Your task to perform on an android device: search for starred emails in the gmail app Image 0: 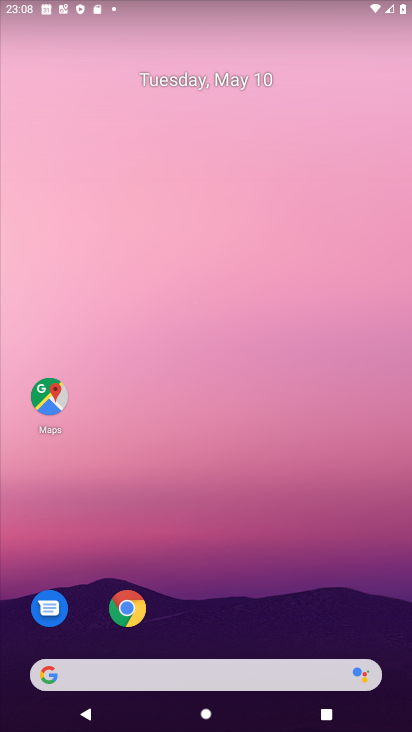
Step 0: drag from (229, 520) to (236, 270)
Your task to perform on an android device: search for starred emails in the gmail app Image 1: 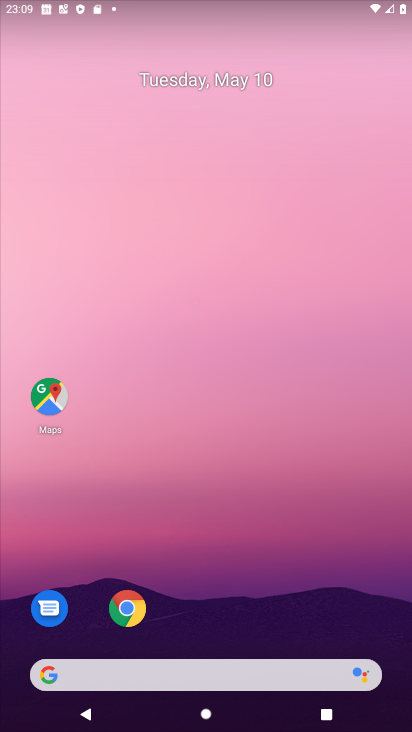
Step 1: drag from (226, 626) to (275, 228)
Your task to perform on an android device: search for starred emails in the gmail app Image 2: 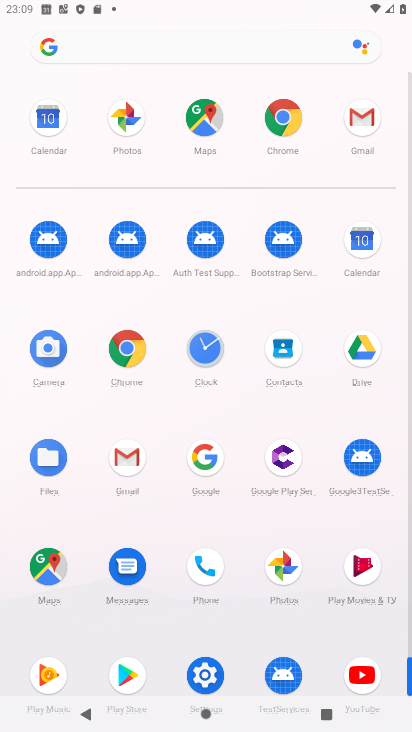
Step 2: click (124, 453)
Your task to perform on an android device: search for starred emails in the gmail app Image 3: 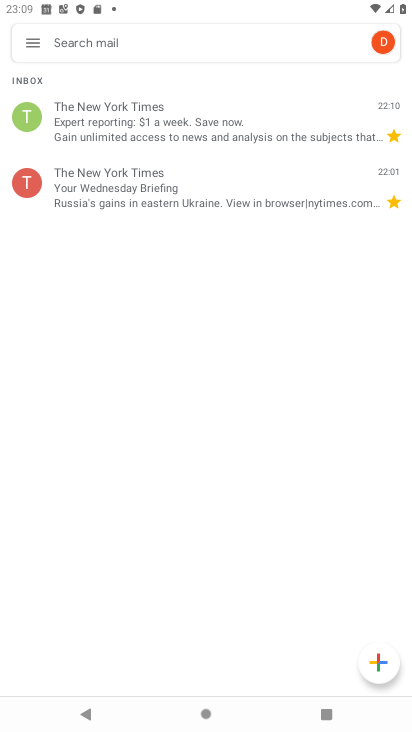
Step 3: click (34, 35)
Your task to perform on an android device: search for starred emails in the gmail app Image 4: 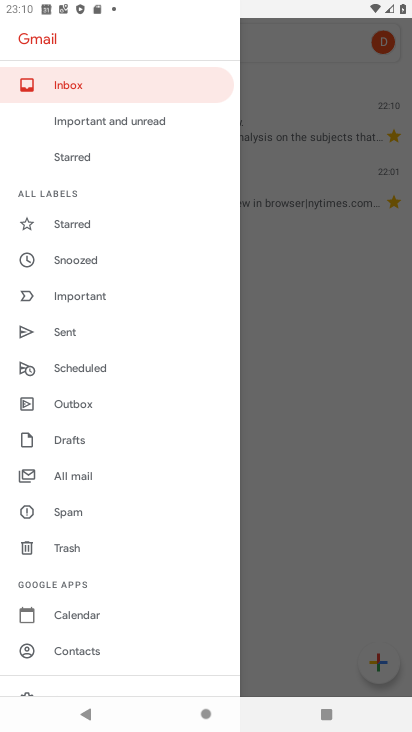
Step 4: click (80, 224)
Your task to perform on an android device: search for starred emails in the gmail app Image 5: 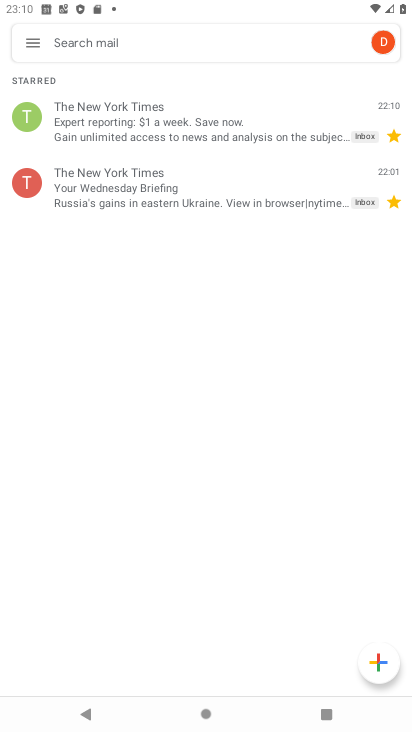
Step 5: task complete